Your task to perform on an android device: Is it going to rain tomorrow? Image 0: 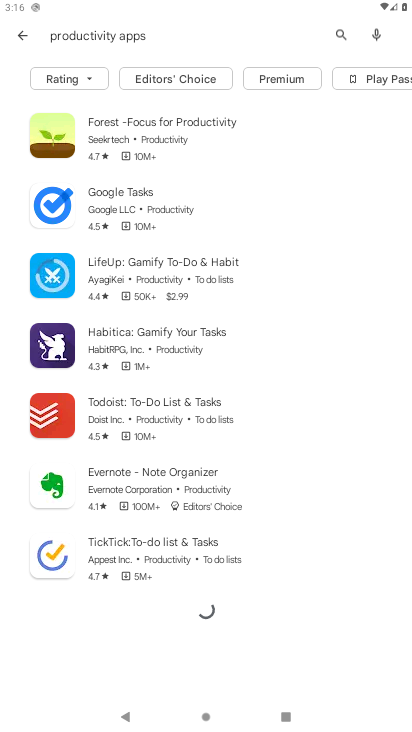
Step 0: press home button
Your task to perform on an android device: Is it going to rain tomorrow? Image 1: 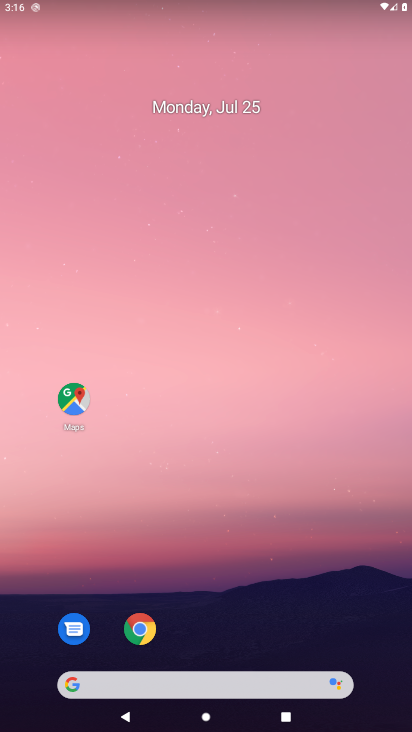
Step 1: click (203, 247)
Your task to perform on an android device: Is it going to rain tomorrow? Image 2: 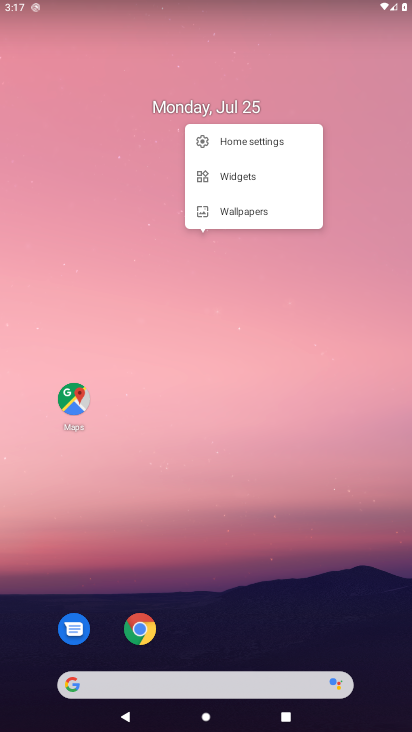
Step 2: click (192, 12)
Your task to perform on an android device: Is it going to rain tomorrow? Image 3: 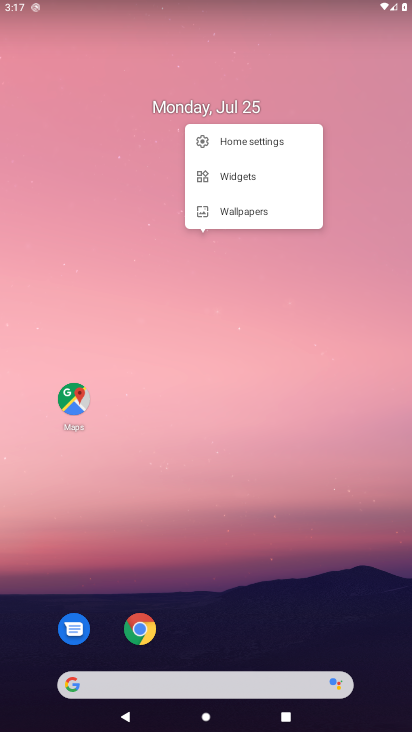
Step 3: drag from (133, 327) to (191, 126)
Your task to perform on an android device: Is it going to rain tomorrow? Image 4: 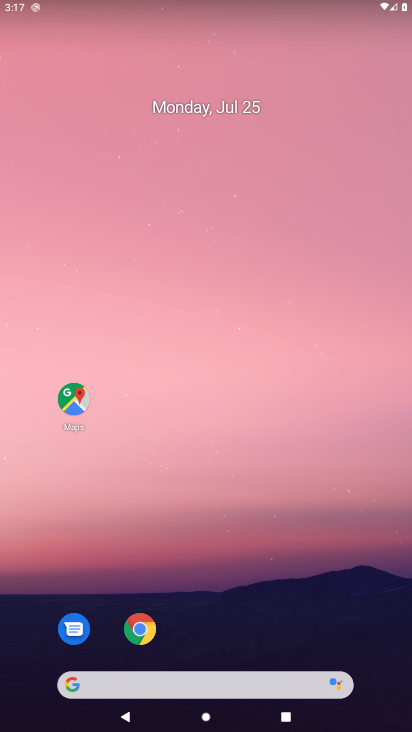
Step 4: drag from (1, 700) to (201, 12)
Your task to perform on an android device: Is it going to rain tomorrow? Image 5: 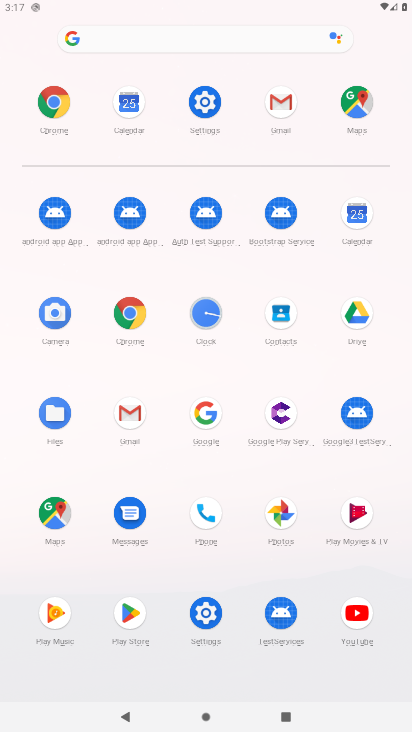
Step 5: click (197, 608)
Your task to perform on an android device: Is it going to rain tomorrow? Image 6: 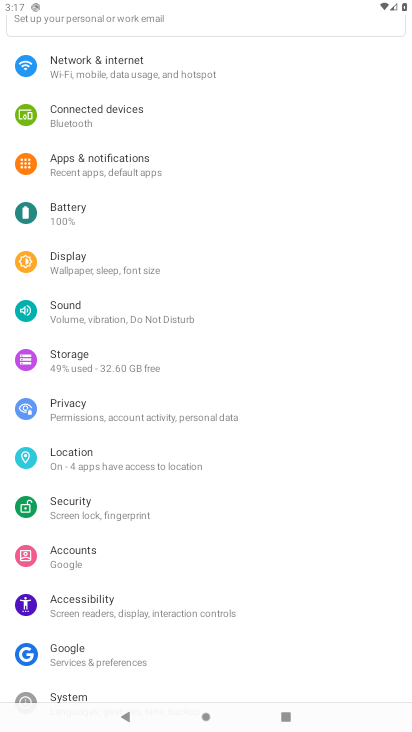
Step 6: press home button
Your task to perform on an android device: Is it going to rain tomorrow? Image 7: 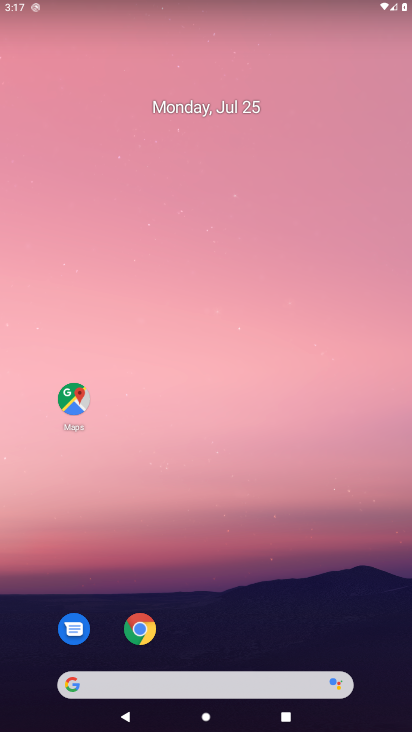
Step 7: click (108, 680)
Your task to perform on an android device: Is it going to rain tomorrow? Image 8: 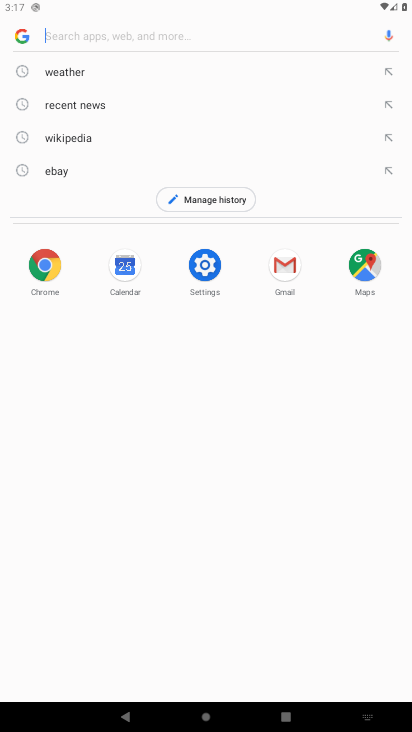
Step 8: type "Is it going to rain tomorrow?"
Your task to perform on an android device: Is it going to rain tomorrow? Image 9: 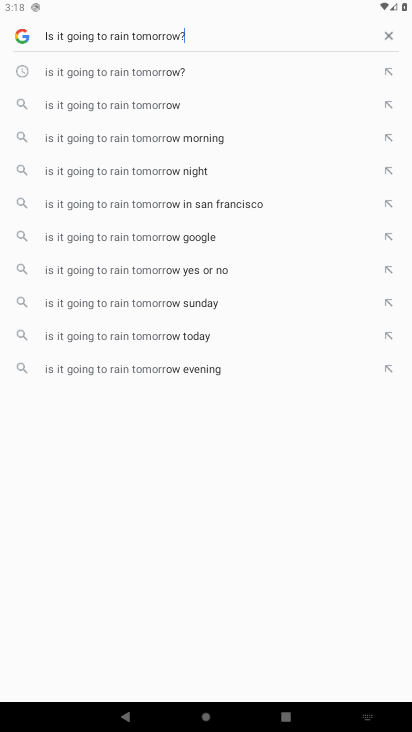
Step 9: type ""
Your task to perform on an android device: Is it going to rain tomorrow? Image 10: 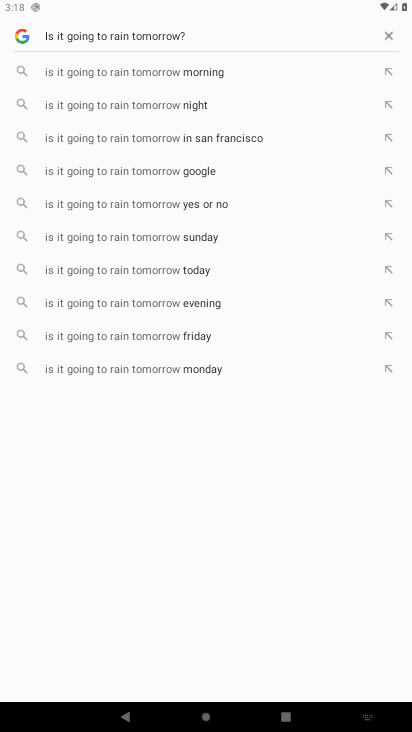
Step 10: type ""
Your task to perform on an android device: Is it going to rain tomorrow? Image 11: 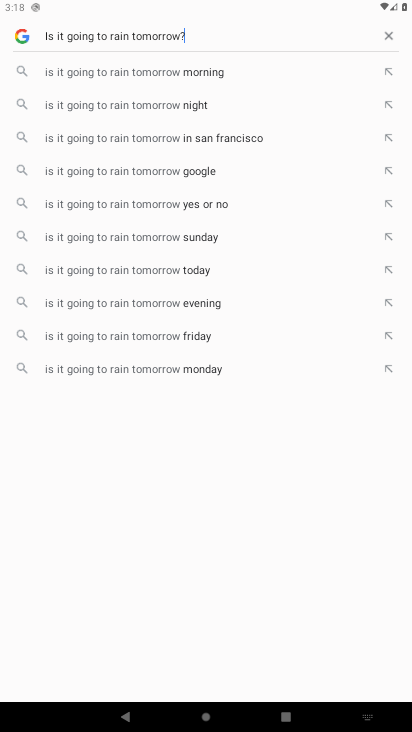
Step 11: type ""
Your task to perform on an android device: Is it going to rain tomorrow? Image 12: 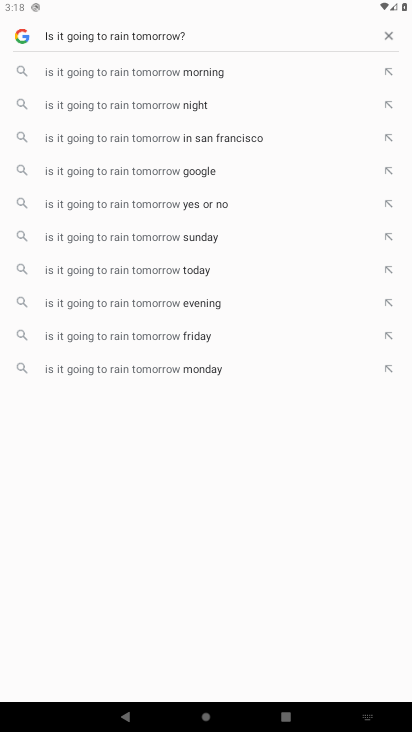
Step 12: task complete